Your task to perform on an android device: What's the weather today? Image 0: 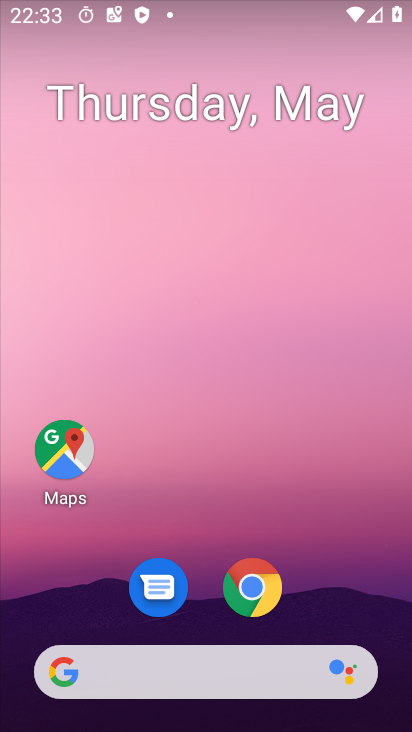
Step 0: click (84, 669)
Your task to perform on an android device: What's the weather today? Image 1: 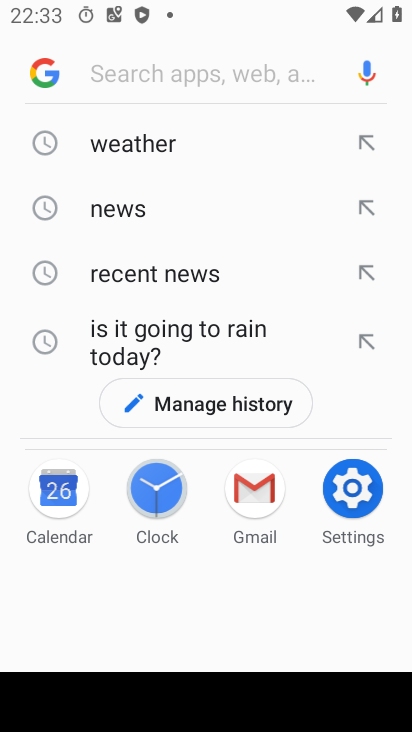
Step 1: click (150, 144)
Your task to perform on an android device: What's the weather today? Image 2: 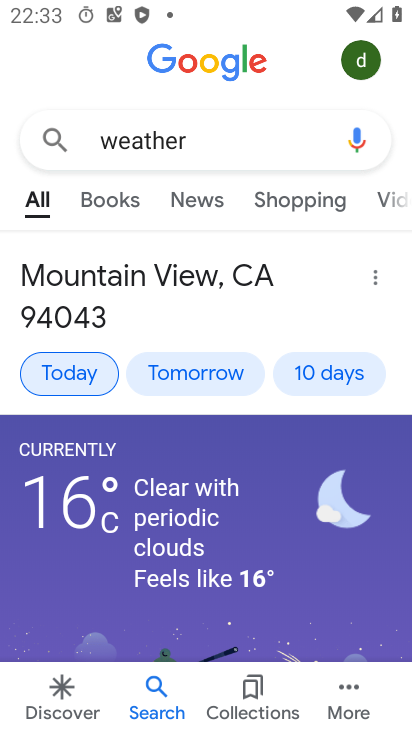
Step 2: task complete